Your task to perform on an android device: Go to internet settings Image 0: 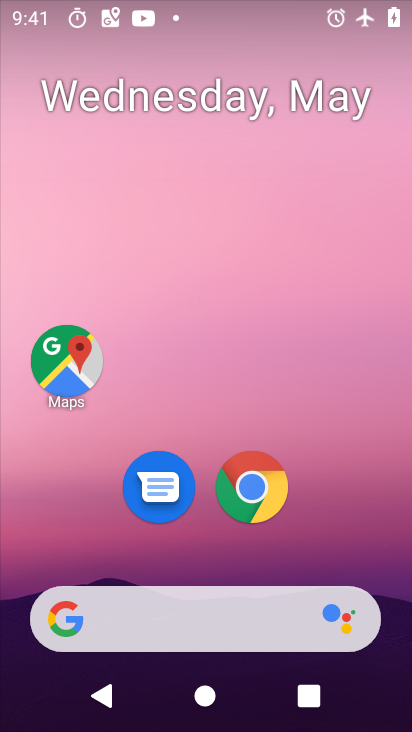
Step 0: drag from (200, 573) to (229, 113)
Your task to perform on an android device: Go to internet settings Image 1: 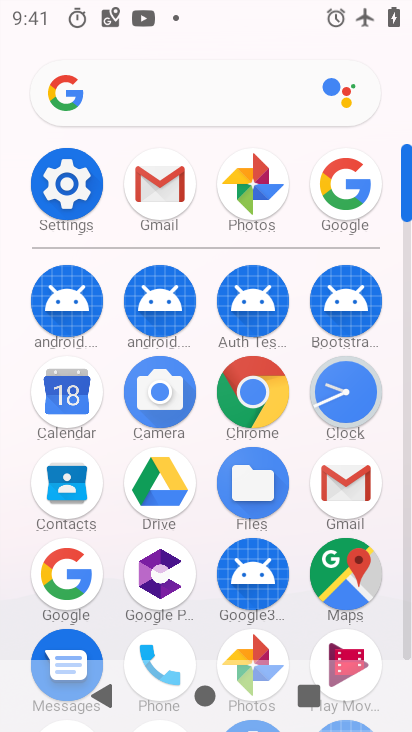
Step 1: click (69, 183)
Your task to perform on an android device: Go to internet settings Image 2: 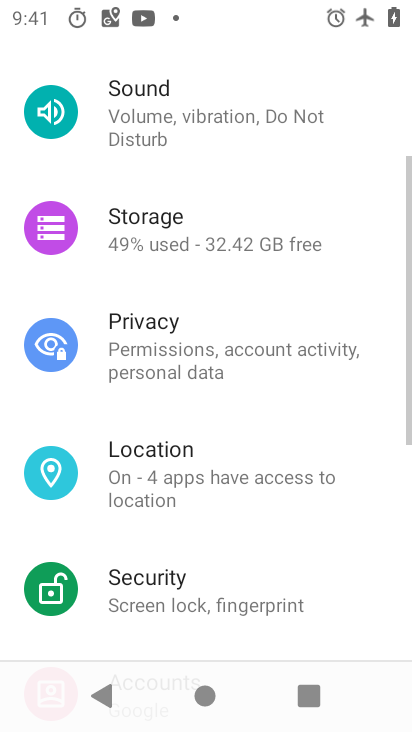
Step 2: drag from (165, 163) to (202, 448)
Your task to perform on an android device: Go to internet settings Image 3: 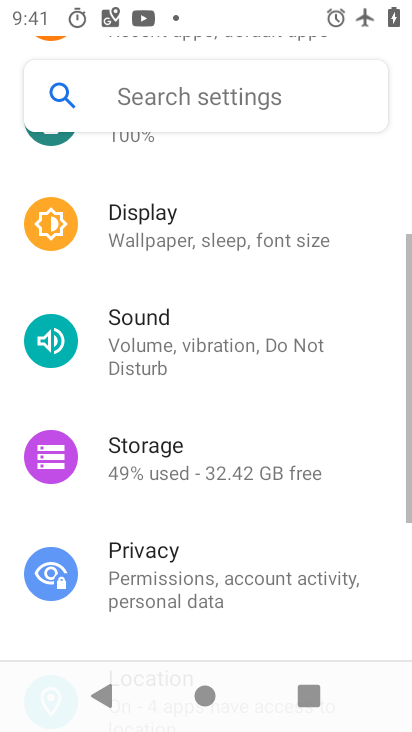
Step 3: drag from (224, 193) to (224, 461)
Your task to perform on an android device: Go to internet settings Image 4: 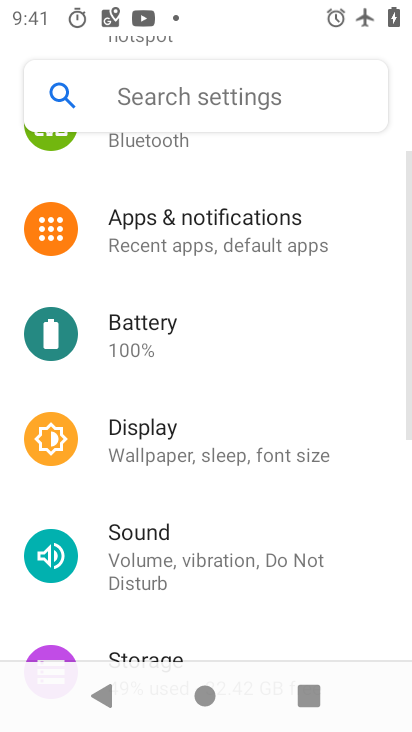
Step 4: drag from (194, 220) to (220, 492)
Your task to perform on an android device: Go to internet settings Image 5: 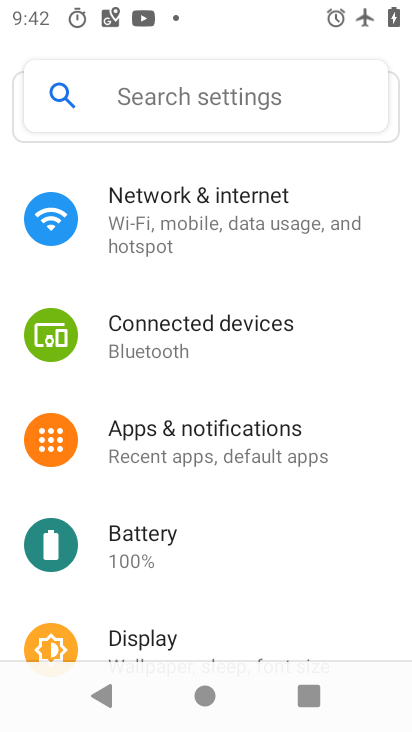
Step 5: drag from (210, 296) to (228, 430)
Your task to perform on an android device: Go to internet settings Image 6: 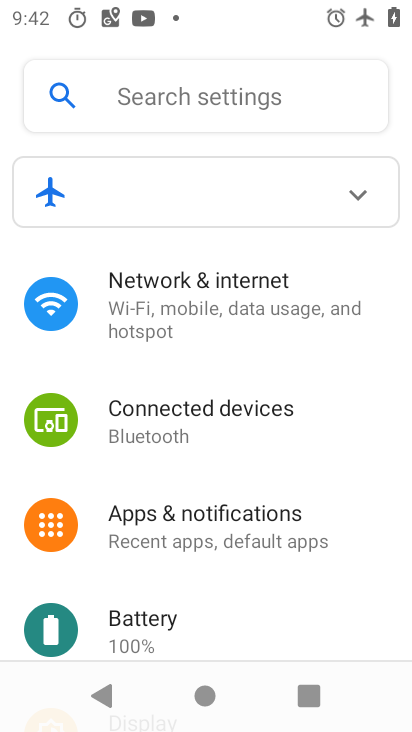
Step 6: click (206, 304)
Your task to perform on an android device: Go to internet settings Image 7: 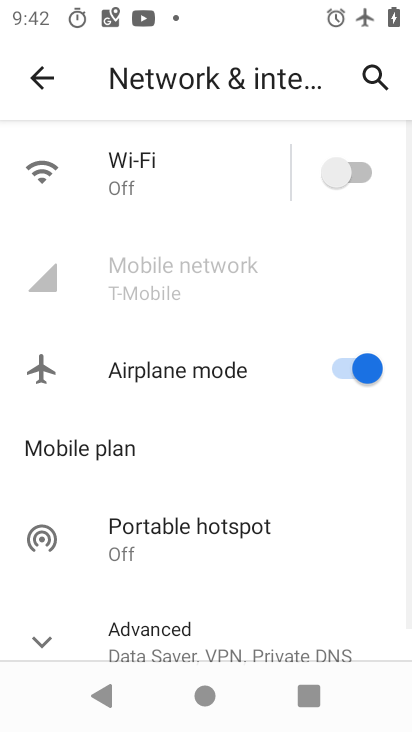
Step 7: task complete